Your task to perform on an android device: open a bookmark in the chrome app Image 0: 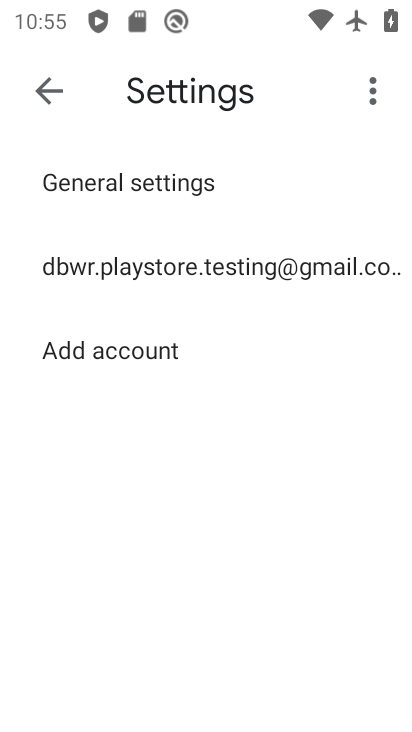
Step 0: press home button
Your task to perform on an android device: open a bookmark in the chrome app Image 1: 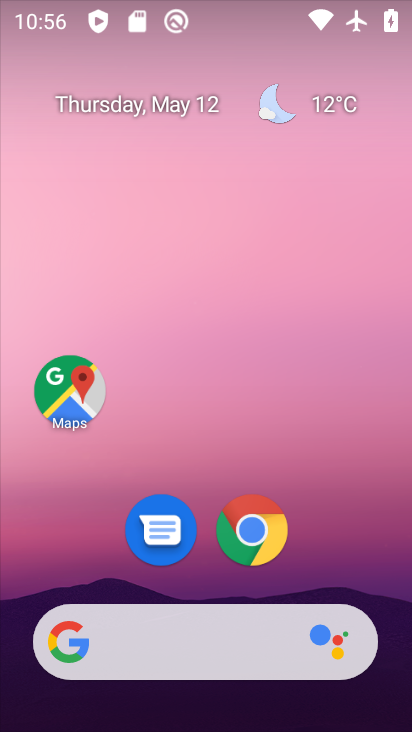
Step 1: click (251, 531)
Your task to perform on an android device: open a bookmark in the chrome app Image 2: 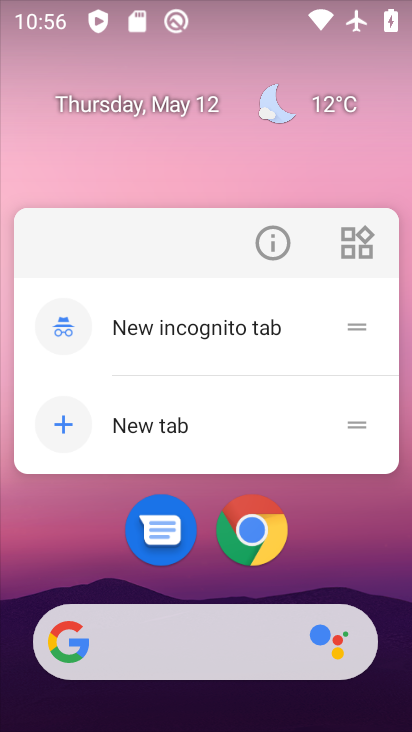
Step 2: click (267, 533)
Your task to perform on an android device: open a bookmark in the chrome app Image 3: 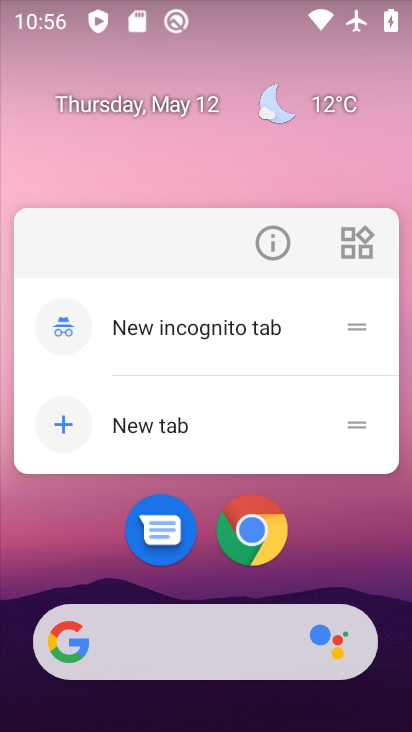
Step 3: click (255, 542)
Your task to perform on an android device: open a bookmark in the chrome app Image 4: 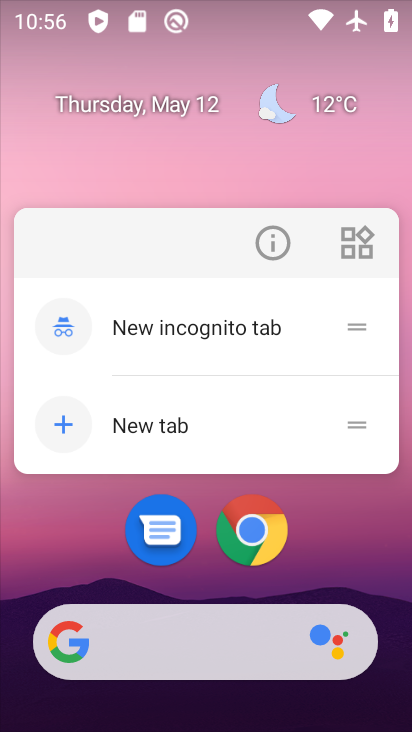
Step 4: click (245, 525)
Your task to perform on an android device: open a bookmark in the chrome app Image 5: 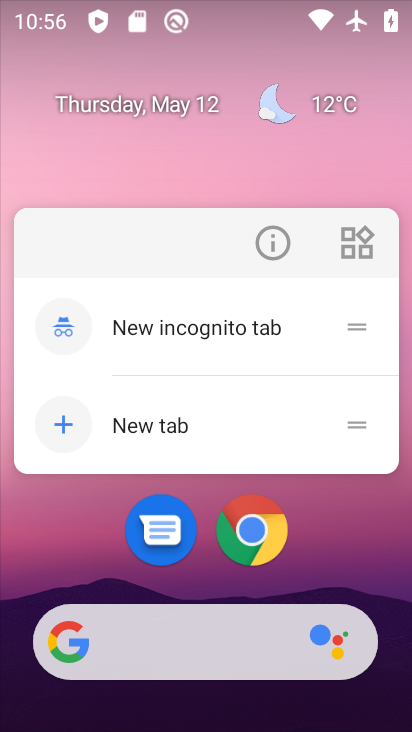
Step 5: click (245, 523)
Your task to perform on an android device: open a bookmark in the chrome app Image 6: 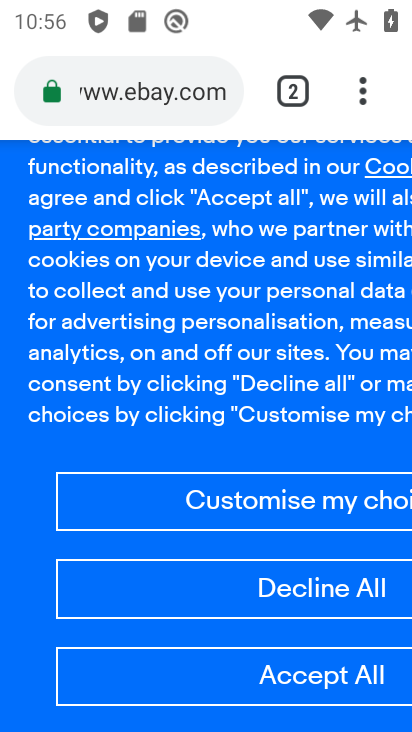
Step 6: task complete